Your task to perform on an android device: see tabs open on other devices in the chrome app Image 0: 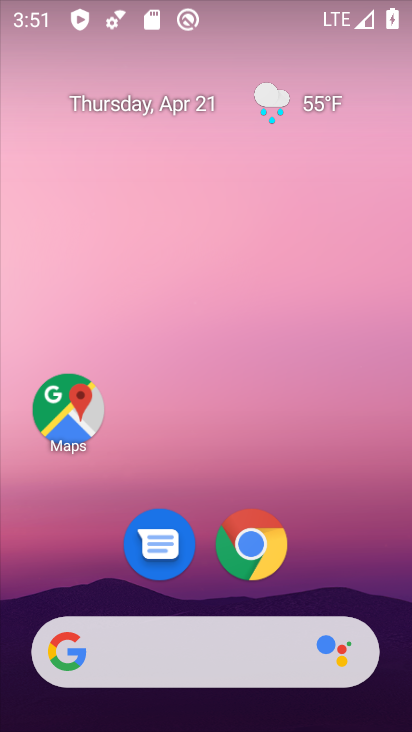
Step 0: drag from (261, 640) to (234, 118)
Your task to perform on an android device: see tabs open on other devices in the chrome app Image 1: 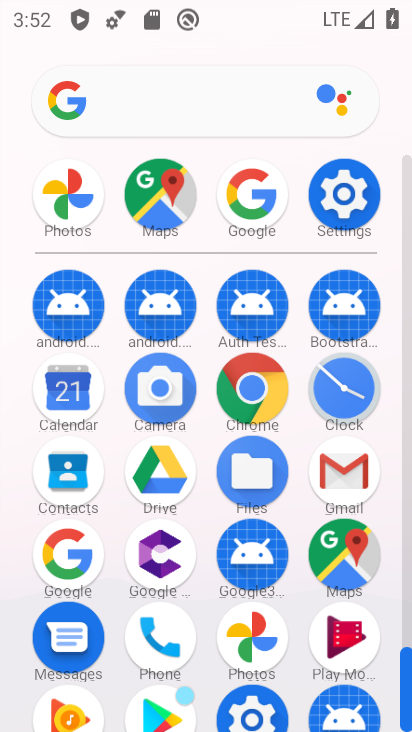
Step 1: click (261, 401)
Your task to perform on an android device: see tabs open on other devices in the chrome app Image 2: 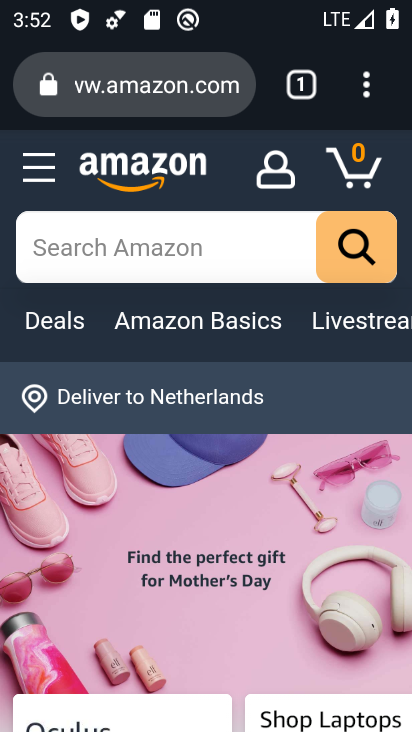
Step 2: task complete